Your task to perform on an android device: Open settings Image 0: 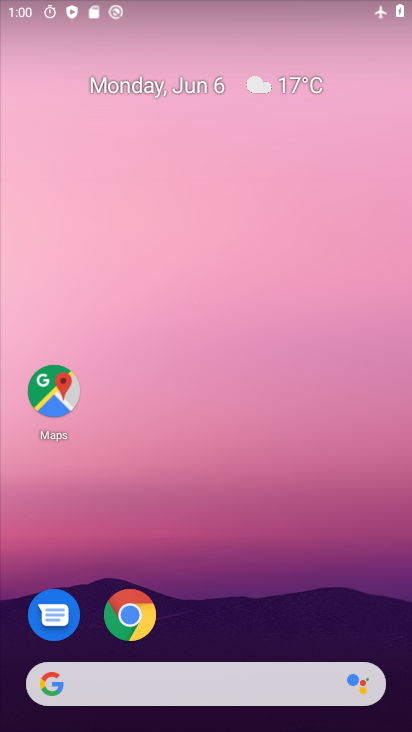
Step 0: drag from (210, 597) to (290, 246)
Your task to perform on an android device: Open settings Image 1: 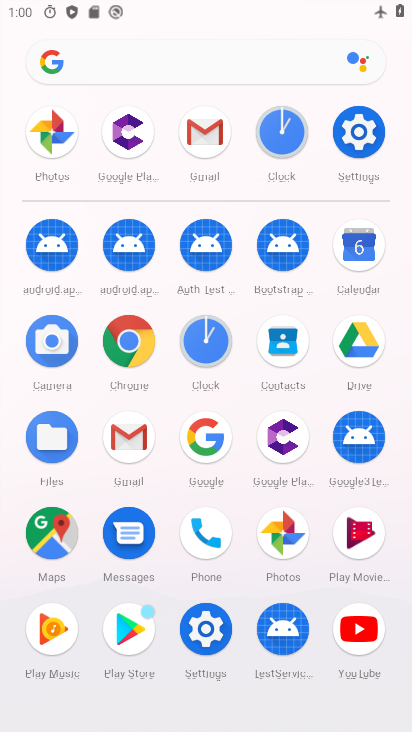
Step 1: click (363, 134)
Your task to perform on an android device: Open settings Image 2: 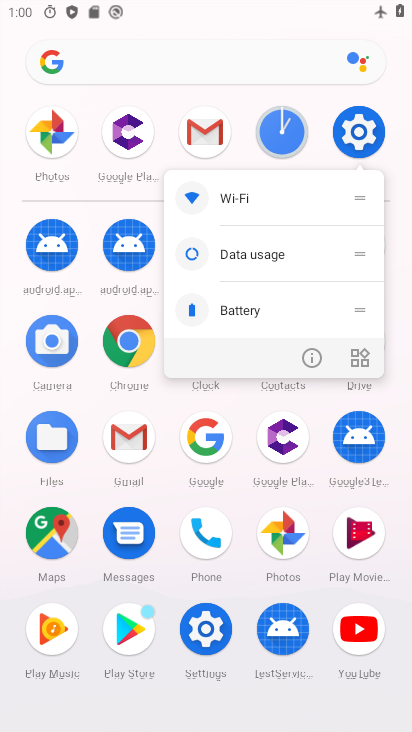
Step 2: click (310, 361)
Your task to perform on an android device: Open settings Image 3: 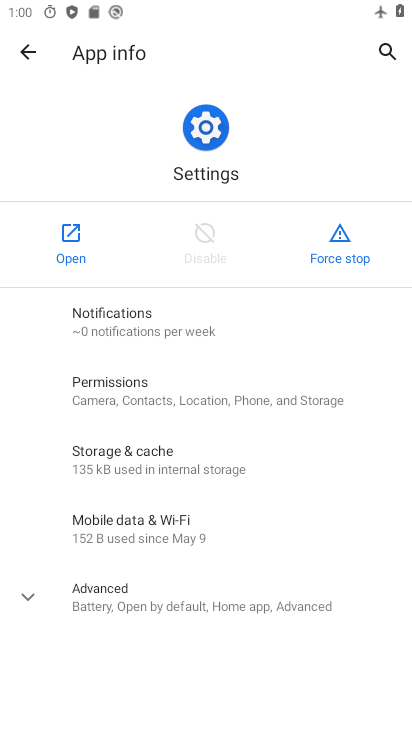
Step 3: click (59, 238)
Your task to perform on an android device: Open settings Image 4: 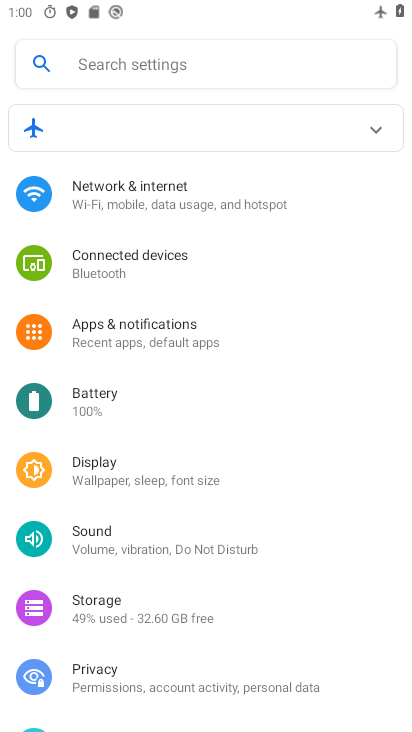
Step 4: task complete